Your task to perform on an android device: toggle priority inbox in the gmail app Image 0: 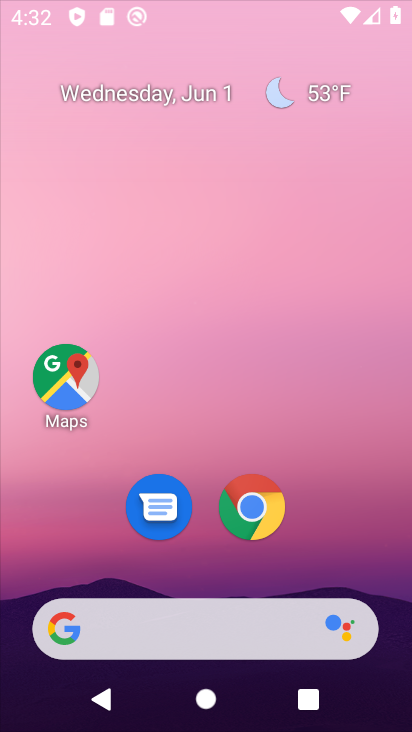
Step 0: drag from (333, 3) to (388, 23)
Your task to perform on an android device: toggle priority inbox in the gmail app Image 1: 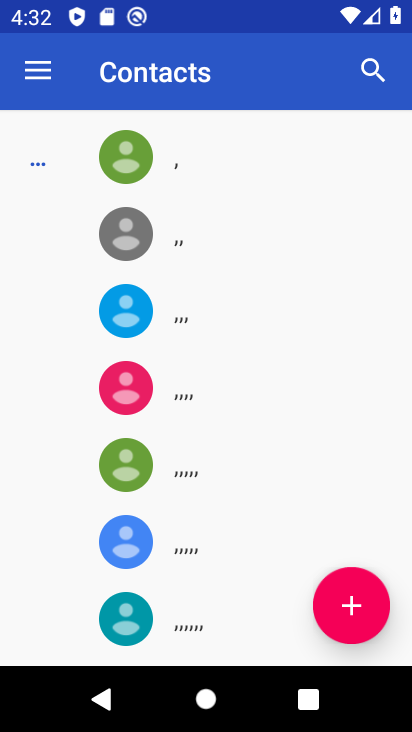
Step 1: press home button
Your task to perform on an android device: toggle priority inbox in the gmail app Image 2: 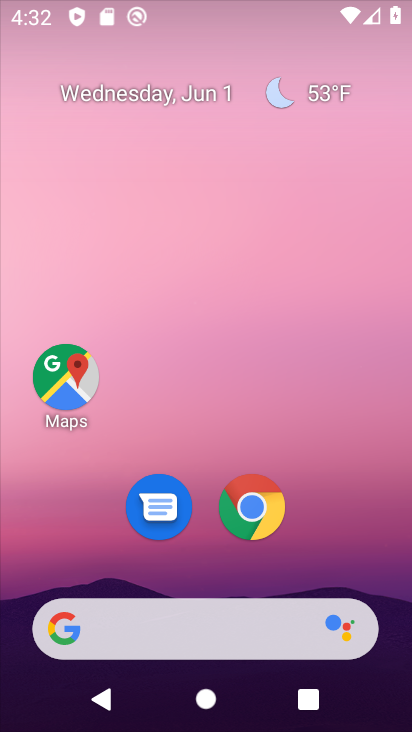
Step 2: drag from (371, 498) to (344, 4)
Your task to perform on an android device: toggle priority inbox in the gmail app Image 3: 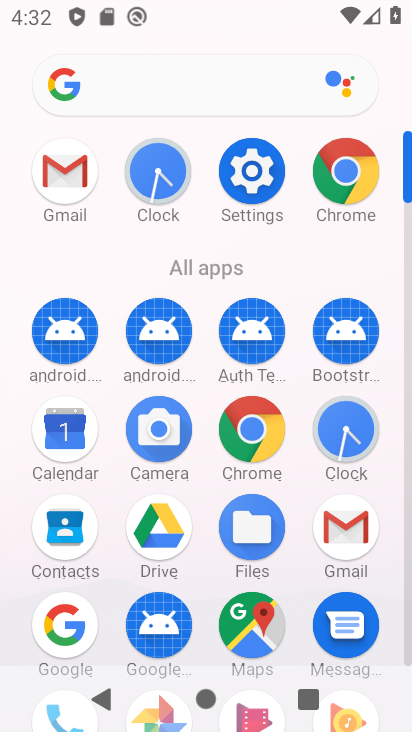
Step 3: click (33, 162)
Your task to perform on an android device: toggle priority inbox in the gmail app Image 4: 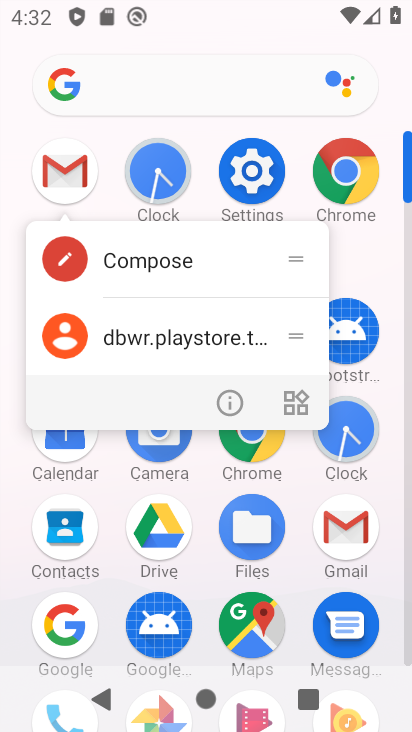
Step 4: click (51, 172)
Your task to perform on an android device: toggle priority inbox in the gmail app Image 5: 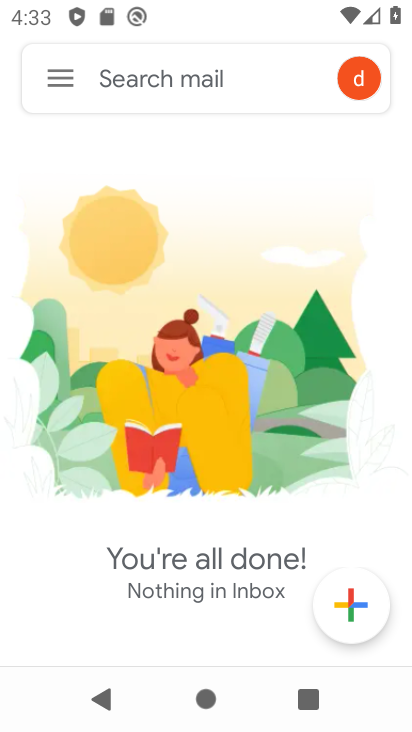
Step 5: click (63, 80)
Your task to perform on an android device: toggle priority inbox in the gmail app Image 6: 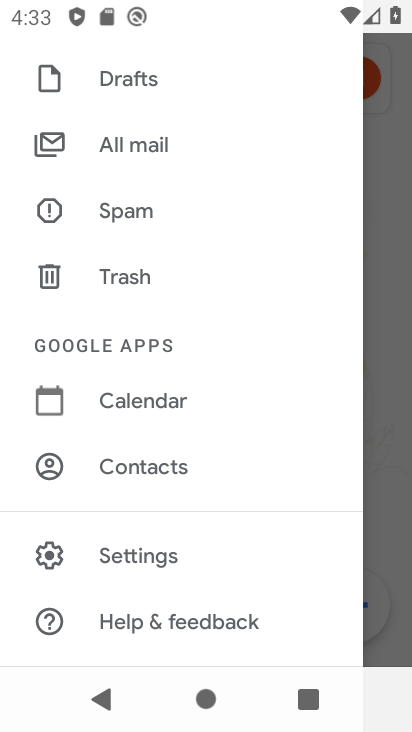
Step 6: click (160, 547)
Your task to perform on an android device: toggle priority inbox in the gmail app Image 7: 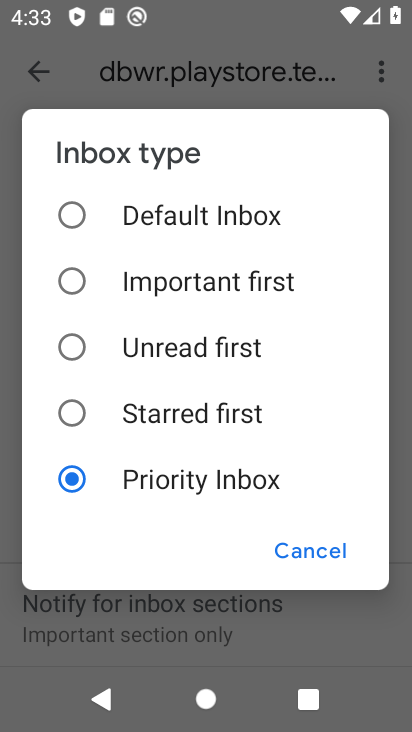
Step 7: click (117, 220)
Your task to perform on an android device: toggle priority inbox in the gmail app Image 8: 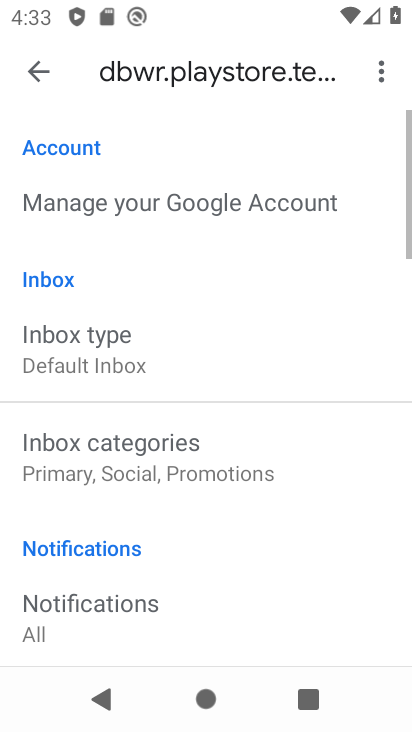
Step 8: task complete